Your task to perform on an android device: visit the assistant section in the google photos Image 0: 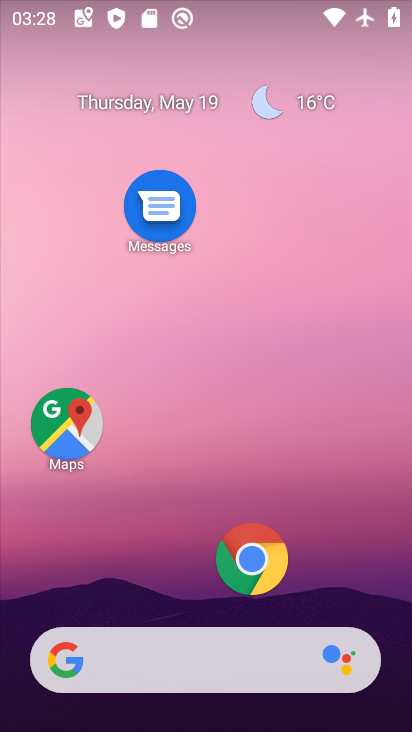
Step 0: drag from (222, 607) to (209, 294)
Your task to perform on an android device: visit the assistant section in the google photos Image 1: 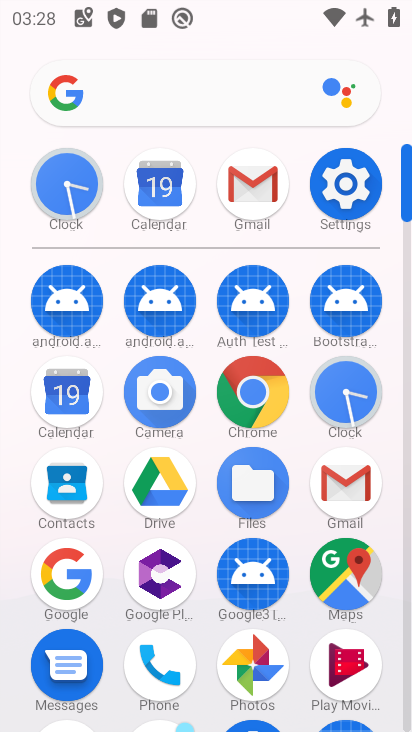
Step 1: click (250, 656)
Your task to perform on an android device: visit the assistant section in the google photos Image 2: 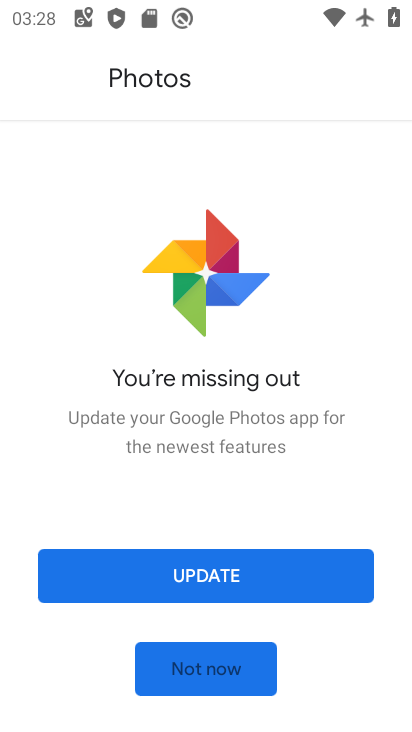
Step 2: click (245, 681)
Your task to perform on an android device: visit the assistant section in the google photos Image 3: 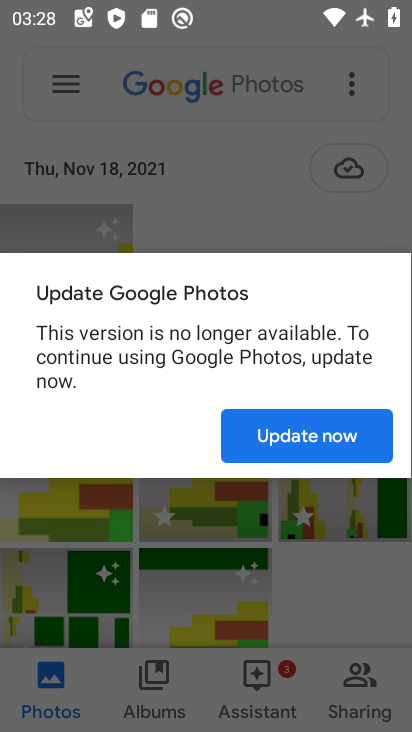
Step 3: click (284, 438)
Your task to perform on an android device: visit the assistant section in the google photos Image 4: 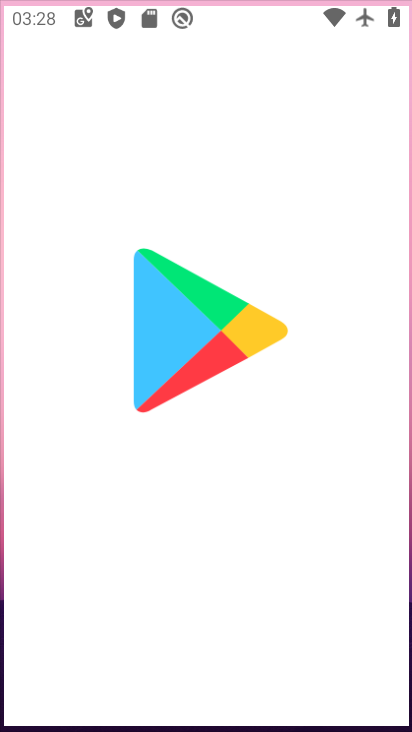
Step 4: click (260, 683)
Your task to perform on an android device: visit the assistant section in the google photos Image 5: 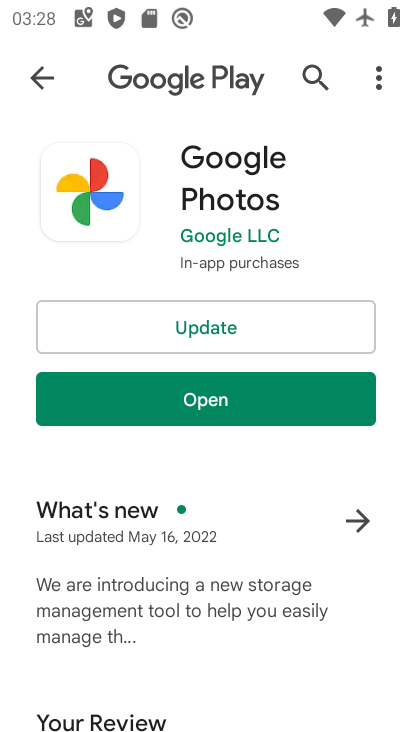
Step 5: click (208, 403)
Your task to perform on an android device: visit the assistant section in the google photos Image 6: 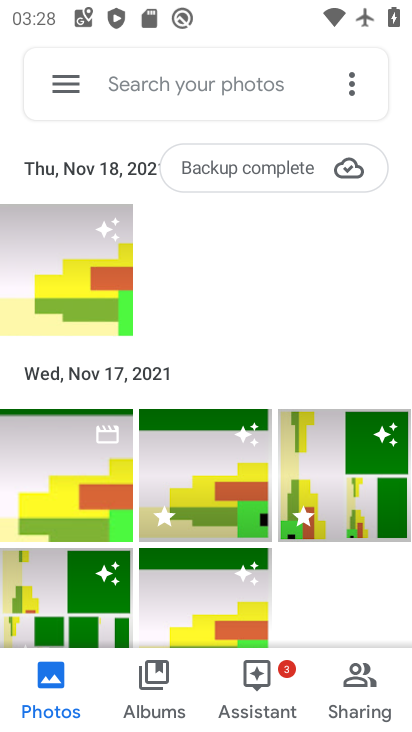
Step 6: click (254, 700)
Your task to perform on an android device: visit the assistant section in the google photos Image 7: 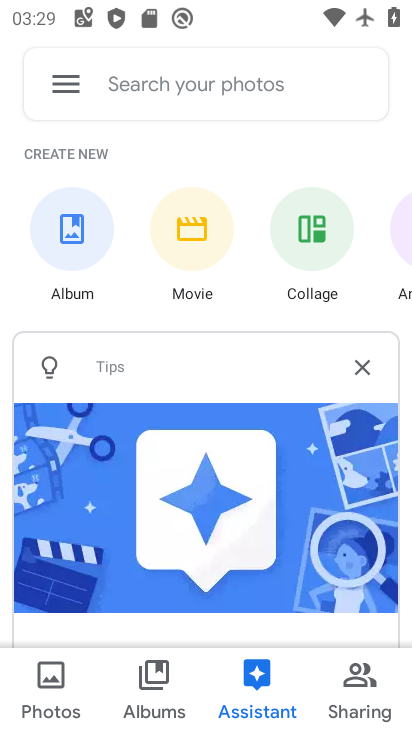
Step 7: task complete